Your task to perform on an android device: open sync settings in chrome Image 0: 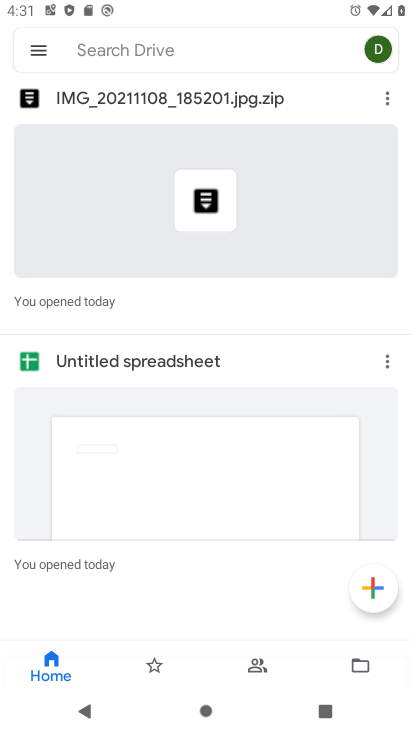
Step 0: press home button
Your task to perform on an android device: open sync settings in chrome Image 1: 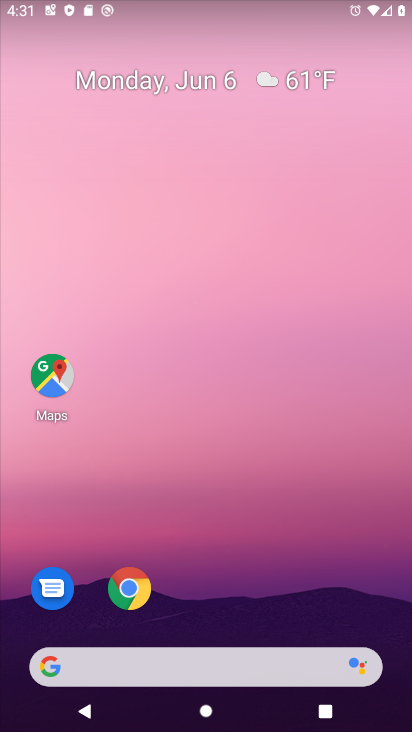
Step 1: click (115, 595)
Your task to perform on an android device: open sync settings in chrome Image 2: 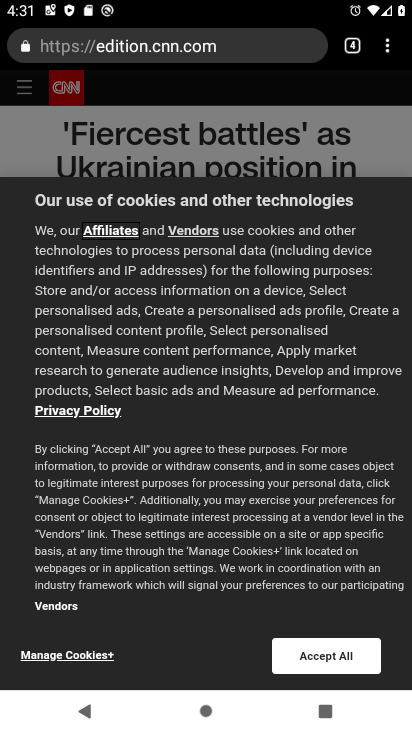
Step 2: click (395, 55)
Your task to perform on an android device: open sync settings in chrome Image 3: 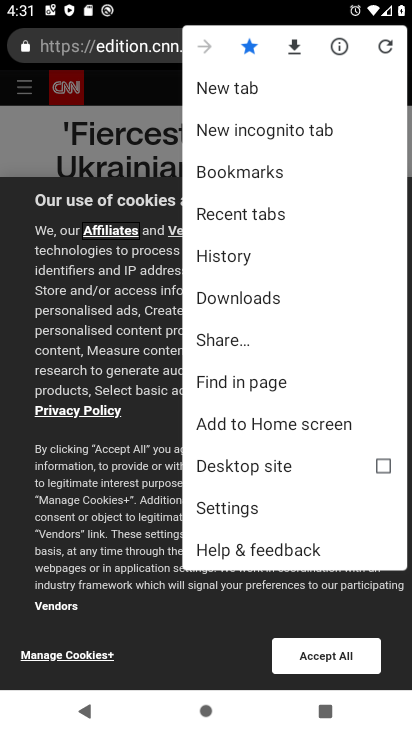
Step 3: click (277, 502)
Your task to perform on an android device: open sync settings in chrome Image 4: 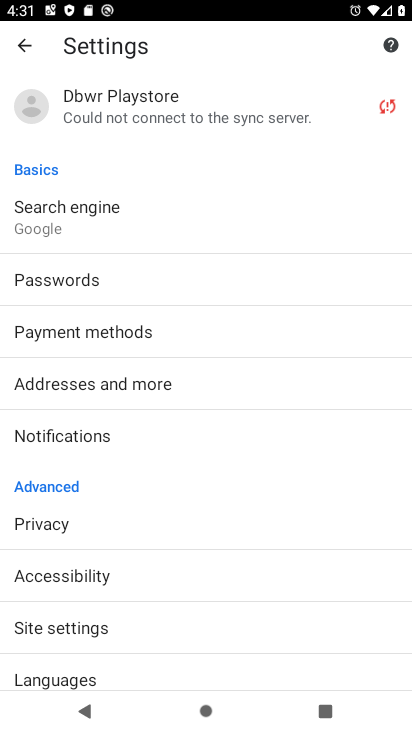
Step 4: click (176, 105)
Your task to perform on an android device: open sync settings in chrome Image 5: 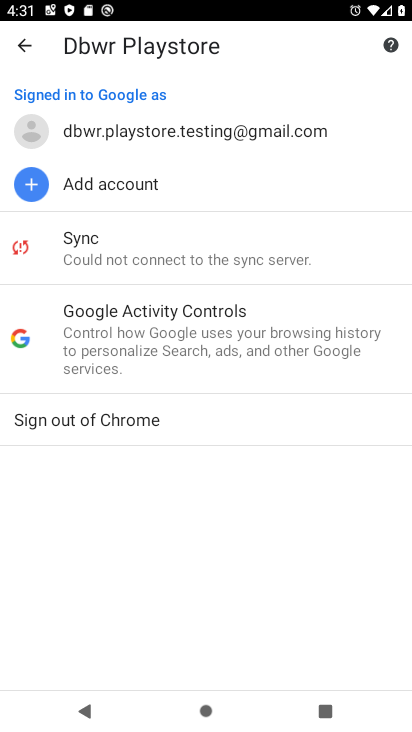
Step 5: click (207, 255)
Your task to perform on an android device: open sync settings in chrome Image 6: 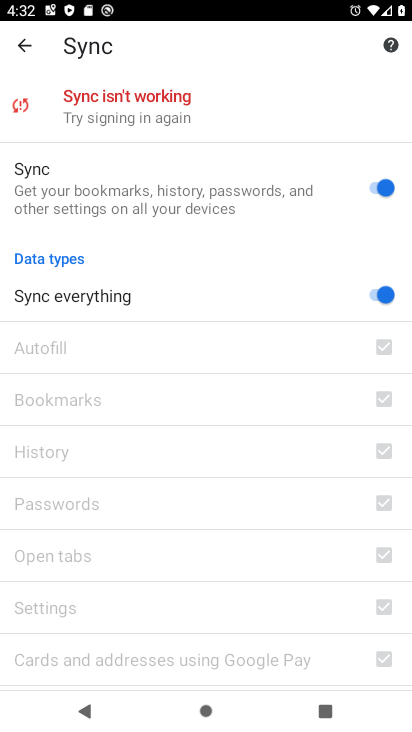
Step 6: task complete